Your task to perform on an android device: Open the Play Movies app and select the watchlist tab. Image 0: 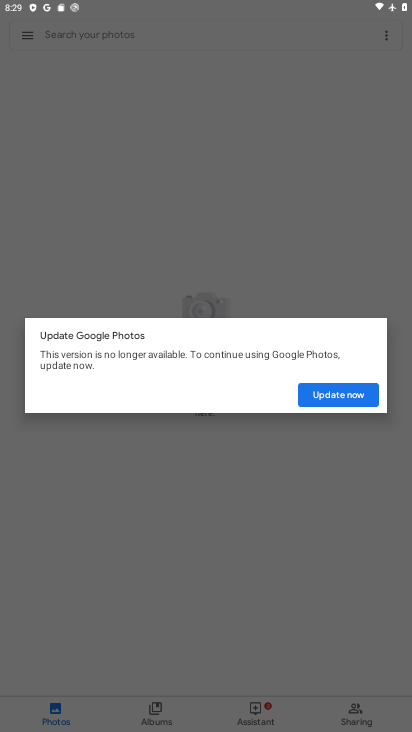
Step 0: press back button
Your task to perform on an android device: Open the Play Movies app and select the watchlist tab. Image 1: 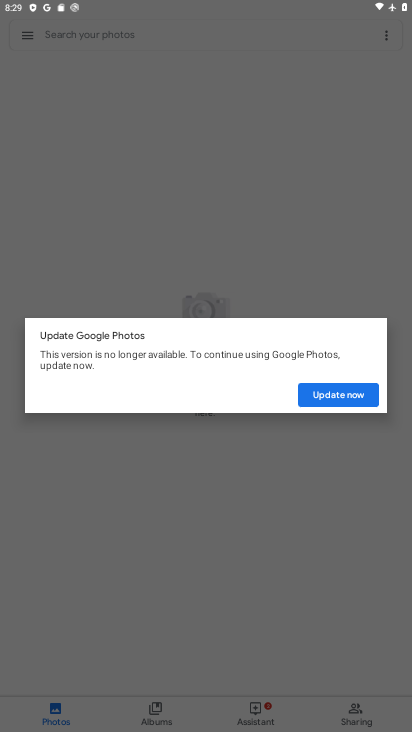
Step 1: press home button
Your task to perform on an android device: Open the Play Movies app and select the watchlist tab. Image 2: 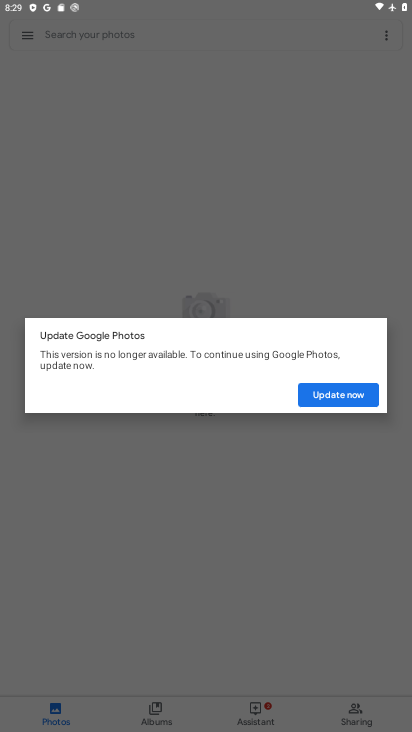
Step 2: press home button
Your task to perform on an android device: Open the Play Movies app and select the watchlist tab. Image 3: 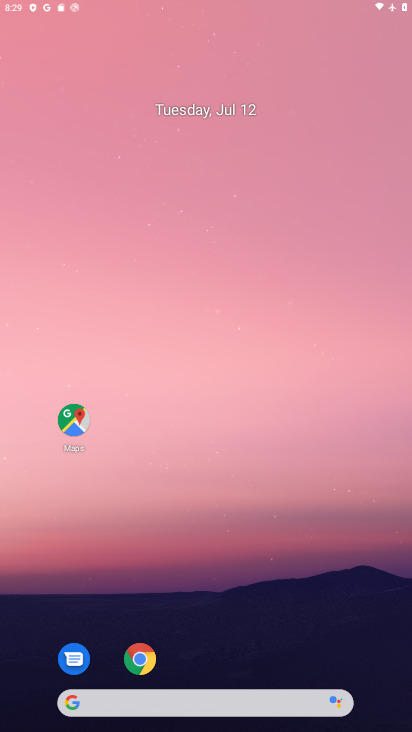
Step 3: press home button
Your task to perform on an android device: Open the Play Movies app and select the watchlist tab. Image 4: 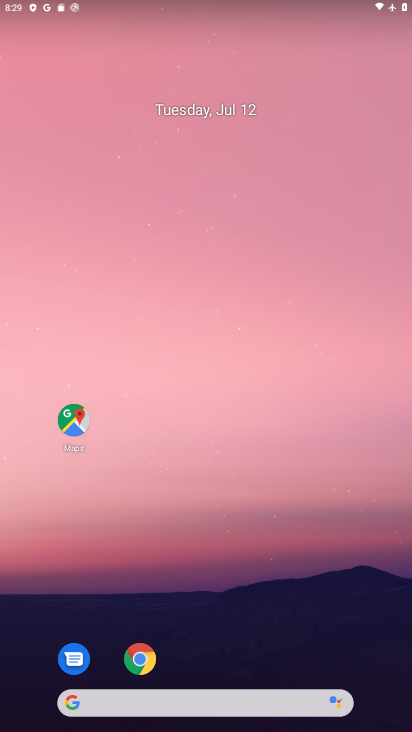
Step 4: drag from (275, 698) to (227, 87)
Your task to perform on an android device: Open the Play Movies app and select the watchlist tab. Image 5: 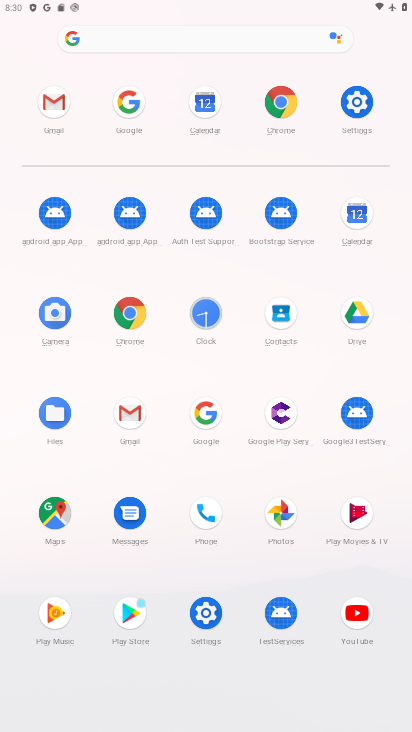
Step 5: click (354, 511)
Your task to perform on an android device: Open the Play Movies app and select the watchlist tab. Image 6: 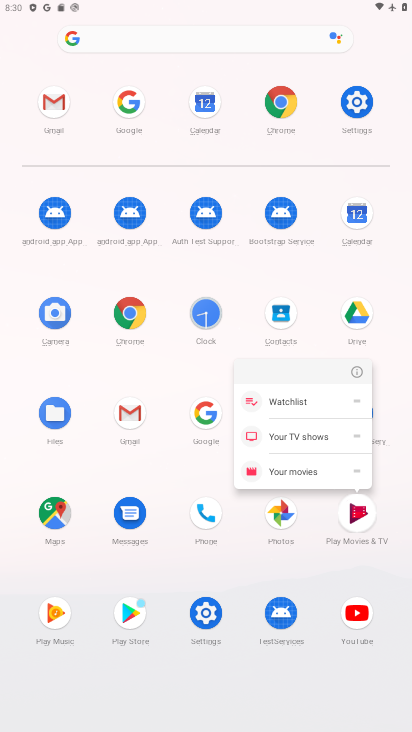
Step 6: click (355, 512)
Your task to perform on an android device: Open the Play Movies app and select the watchlist tab. Image 7: 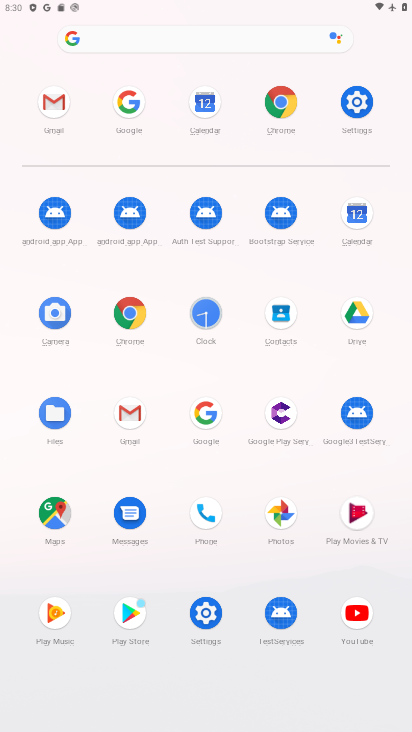
Step 7: click (357, 513)
Your task to perform on an android device: Open the Play Movies app and select the watchlist tab. Image 8: 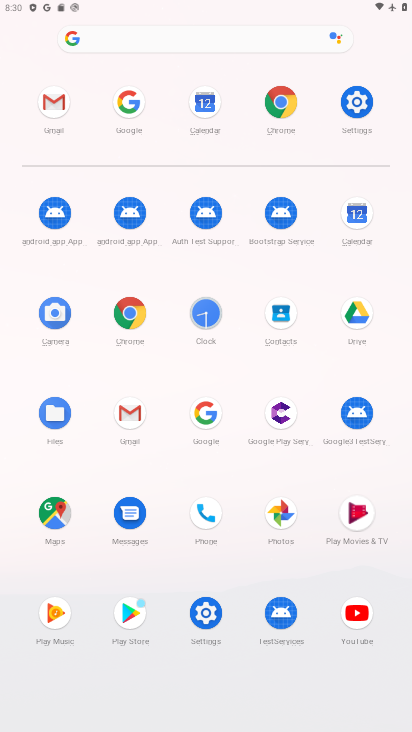
Step 8: click (360, 516)
Your task to perform on an android device: Open the Play Movies app and select the watchlist tab. Image 9: 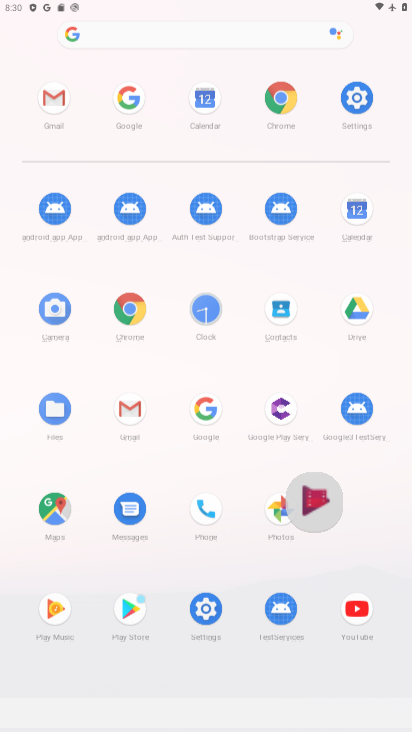
Step 9: click (366, 520)
Your task to perform on an android device: Open the Play Movies app and select the watchlist tab. Image 10: 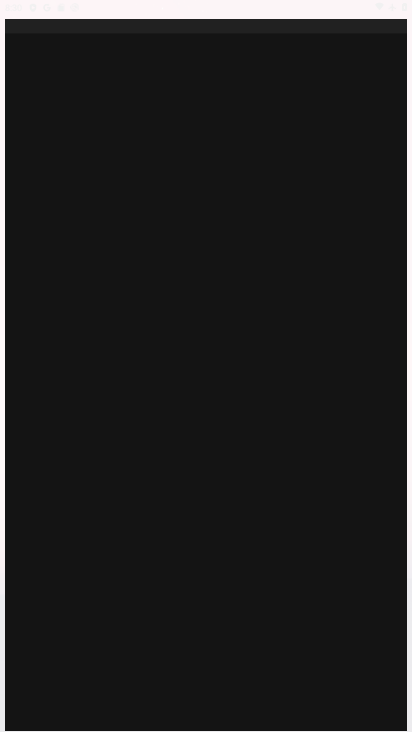
Step 10: click (368, 521)
Your task to perform on an android device: Open the Play Movies app and select the watchlist tab. Image 11: 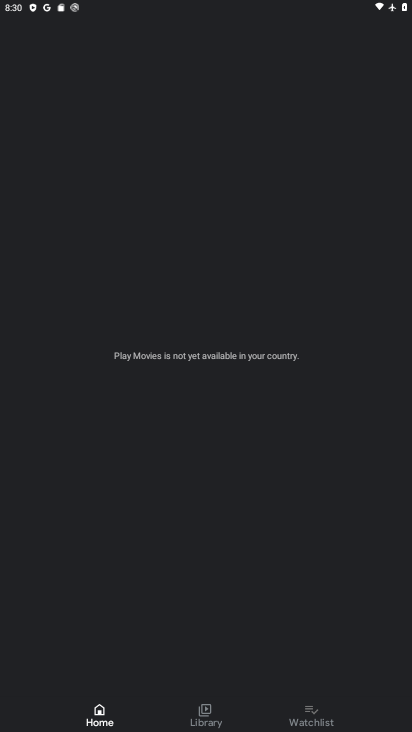
Step 11: click (290, 480)
Your task to perform on an android device: Open the Play Movies app and select the watchlist tab. Image 12: 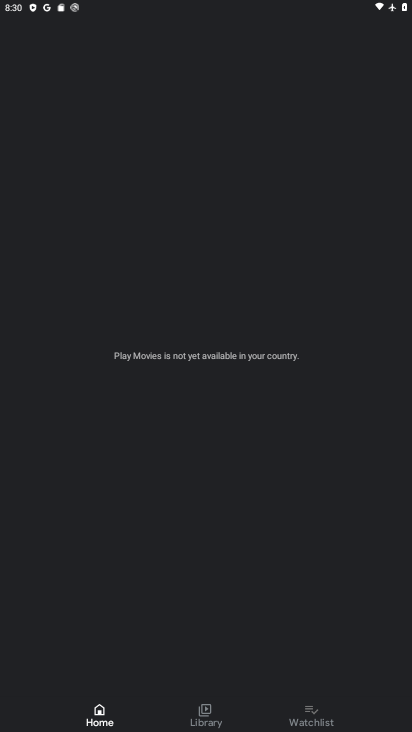
Step 12: click (291, 479)
Your task to perform on an android device: Open the Play Movies app and select the watchlist tab. Image 13: 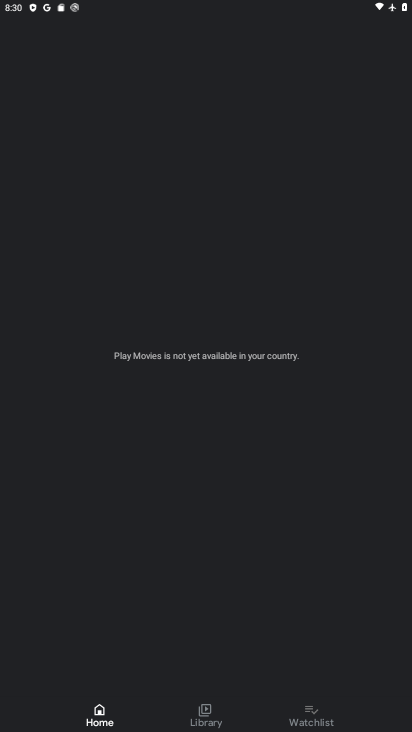
Step 13: click (296, 714)
Your task to perform on an android device: Open the Play Movies app and select the watchlist tab. Image 14: 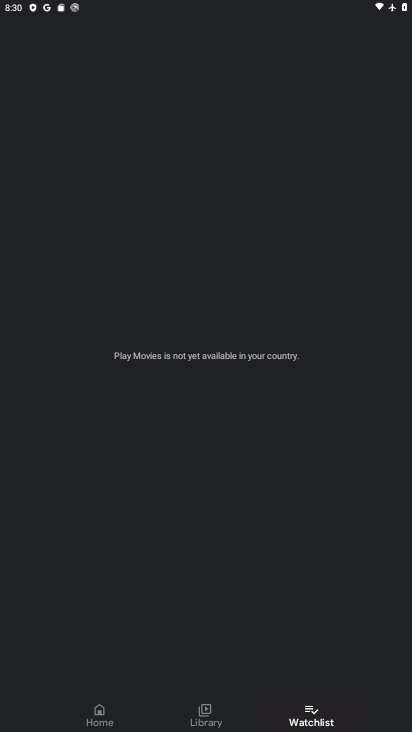
Step 14: click (308, 714)
Your task to perform on an android device: Open the Play Movies app and select the watchlist tab. Image 15: 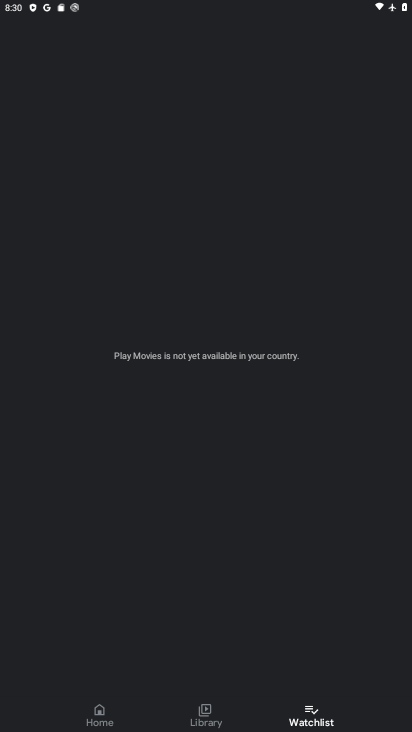
Step 15: click (308, 714)
Your task to perform on an android device: Open the Play Movies app and select the watchlist tab. Image 16: 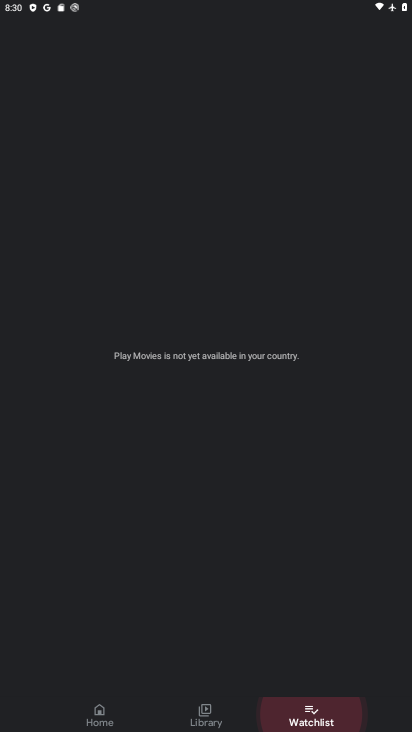
Step 16: click (315, 715)
Your task to perform on an android device: Open the Play Movies app and select the watchlist tab. Image 17: 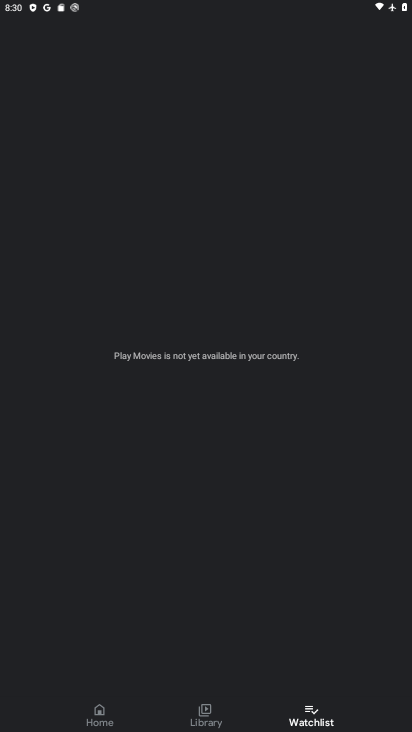
Step 17: task complete